Your task to perform on an android device: open app "NewsBreak: Local News & Alerts" Image 0: 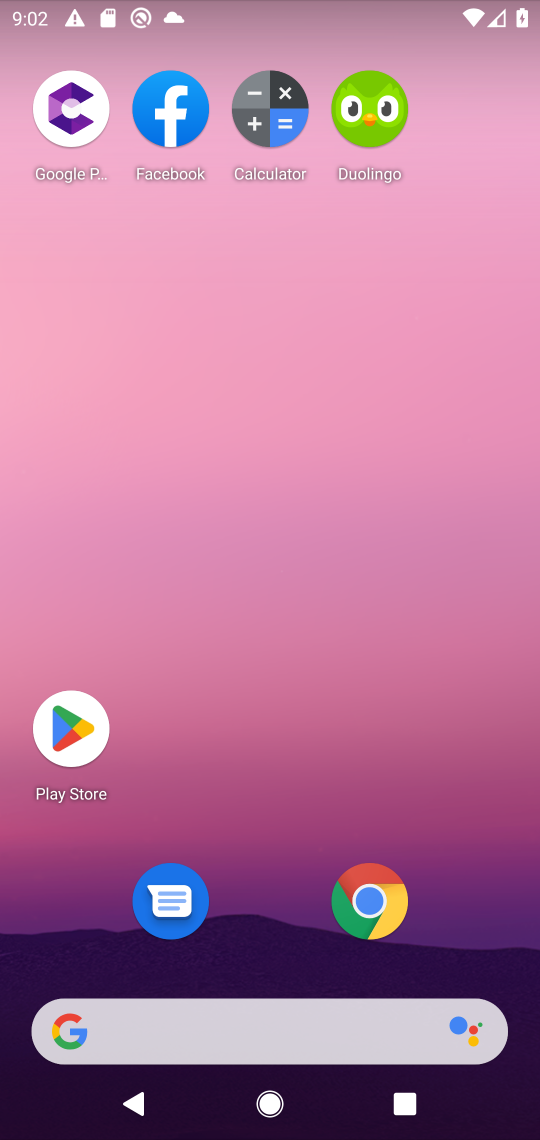
Step 0: click (99, 729)
Your task to perform on an android device: open app "NewsBreak: Local News & Alerts" Image 1: 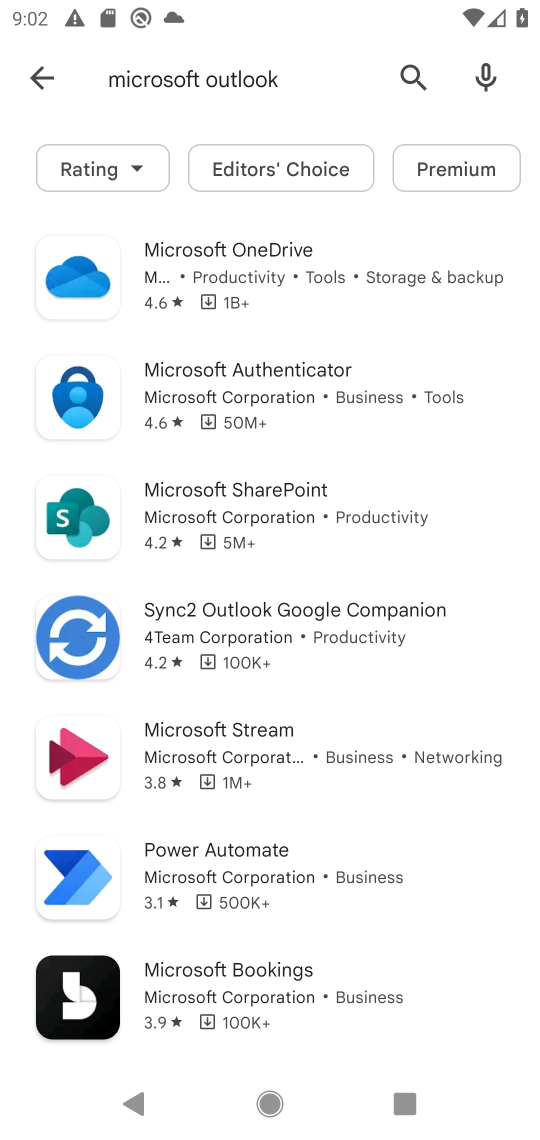
Step 1: click (30, 85)
Your task to perform on an android device: open app "NewsBreak: Local News & Alerts" Image 2: 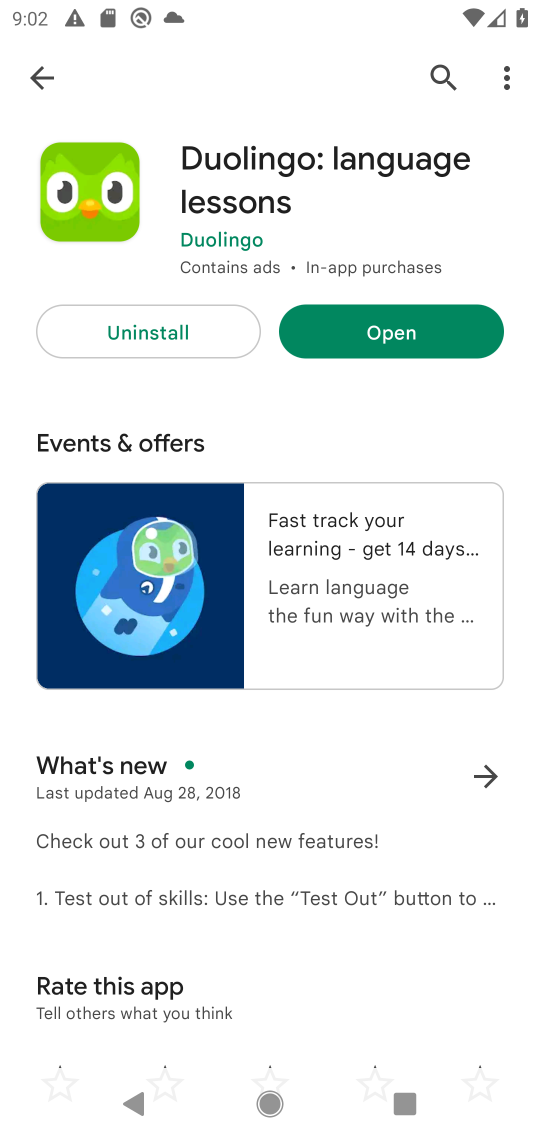
Step 2: press home button
Your task to perform on an android device: open app "NewsBreak: Local News & Alerts" Image 3: 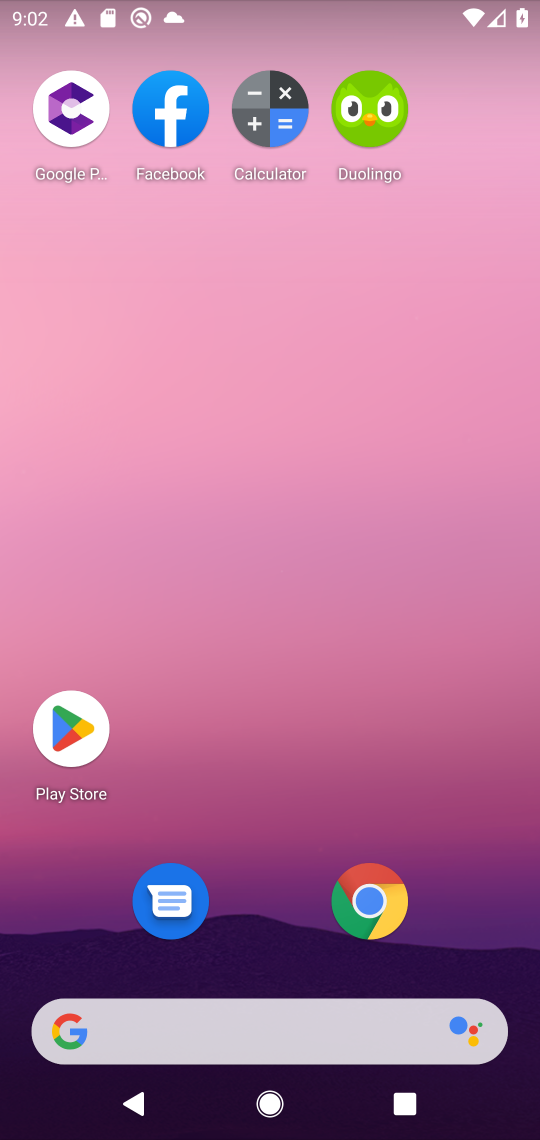
Step 3: click (90, 724)
Your task to perform on an android device: open app "NewsBreak: Local News & Alerts" Image 4: 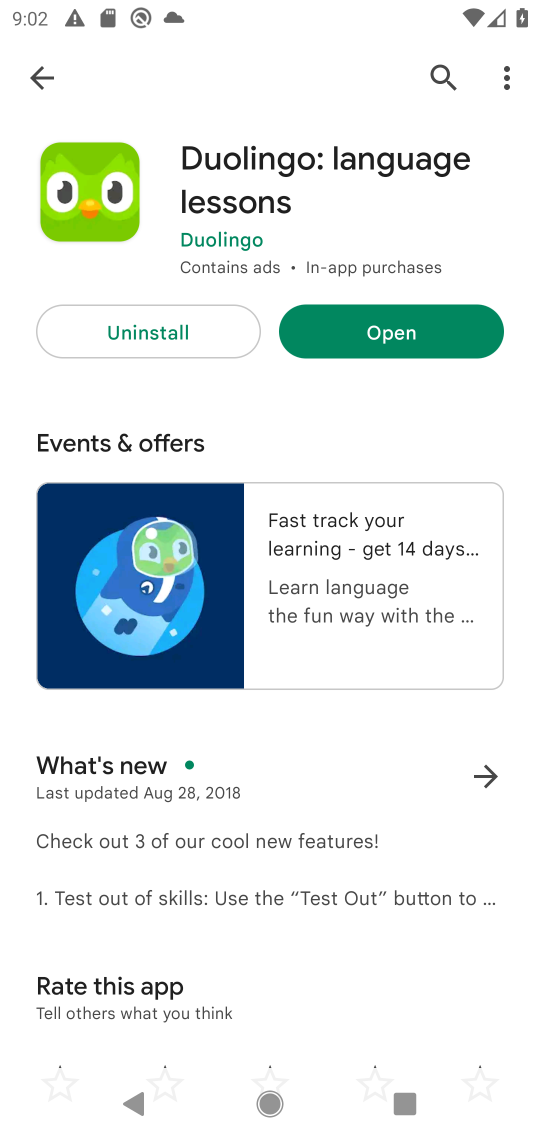
Step 4: click (442, 72)
Your task to perform on an android device: open app "NewsBreak: Local News & Alerts" Image 5: 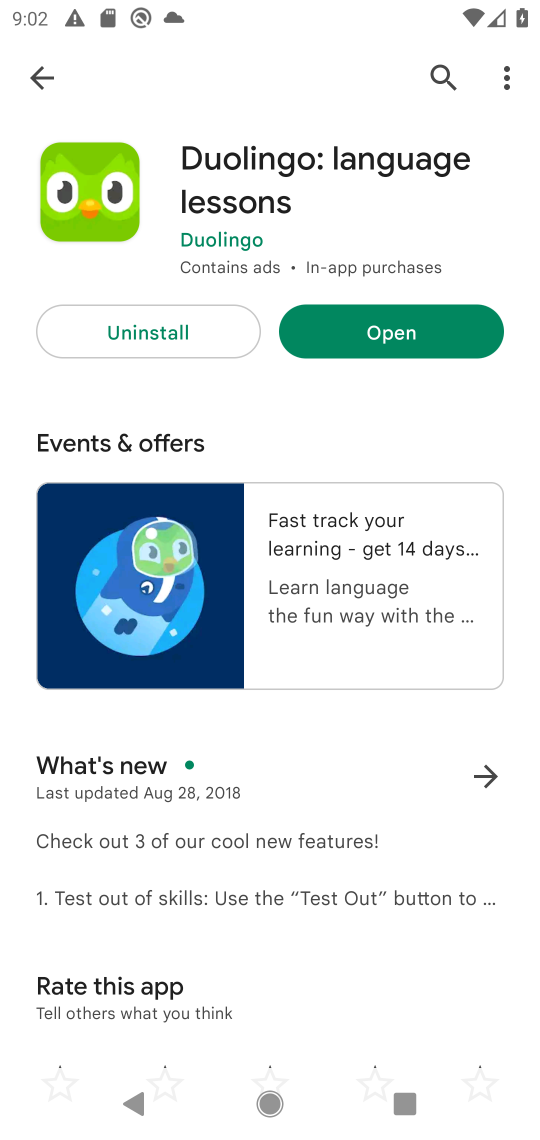
Step 5: click (441, 77)
Your task to perform on an android device: open app "NewsBreak: Local News & Alerts" Image 6: 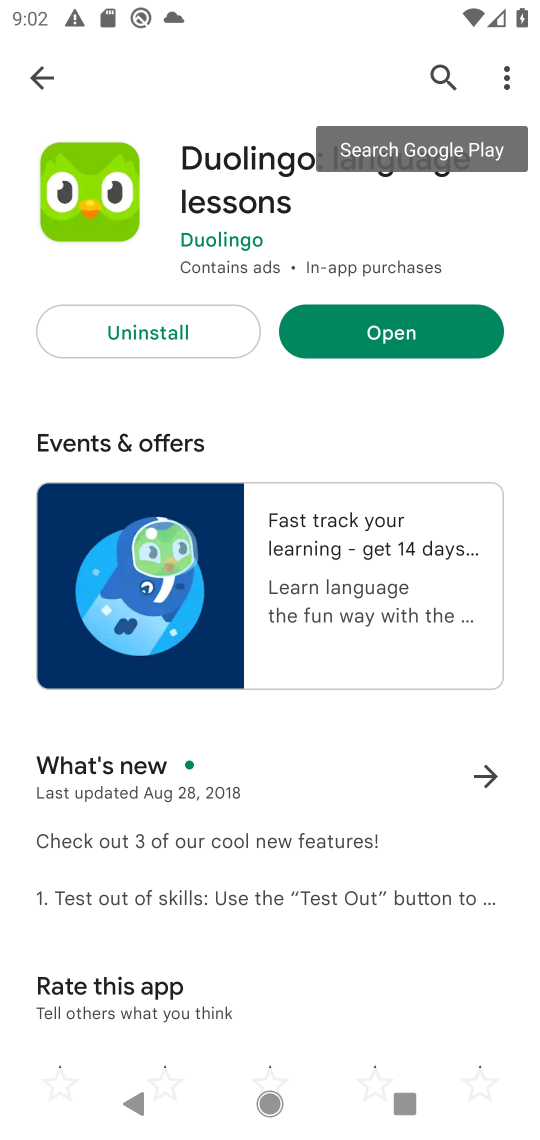
Step 6: click (364, 78)
Your task to perform on an android device: open app "NewsBreak: Local News & Alerts" Image 7: 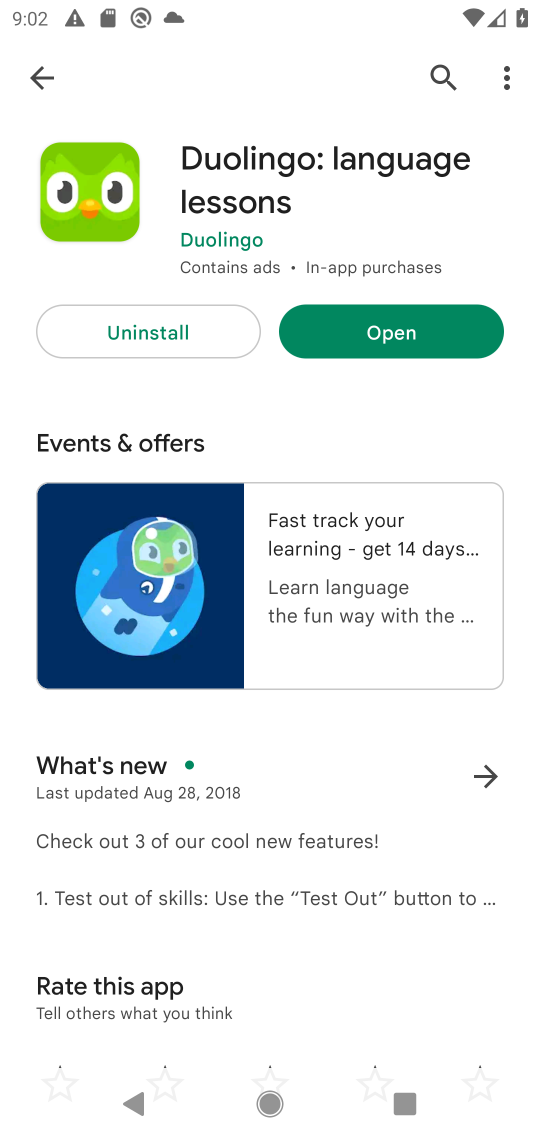
Step 7: click (47, 70)
Your task to perform on an android device: open app "NewsBreak: Local News & Alerts" Image 8: 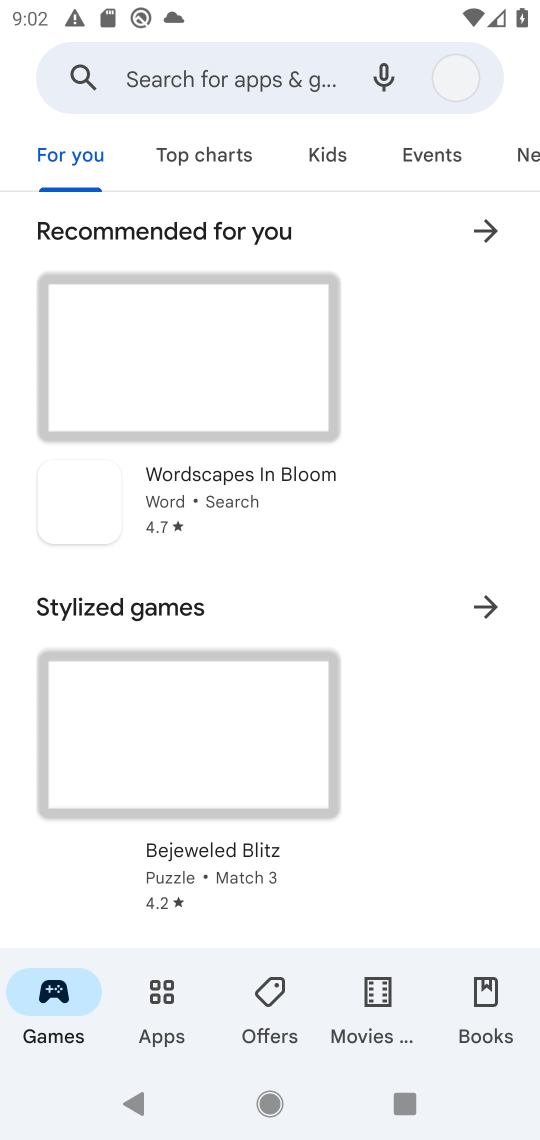
Step 8: click (246, 75)
Your task to perform on an android device: open app "NewsBreak: Local News & Alerts" Image 9: 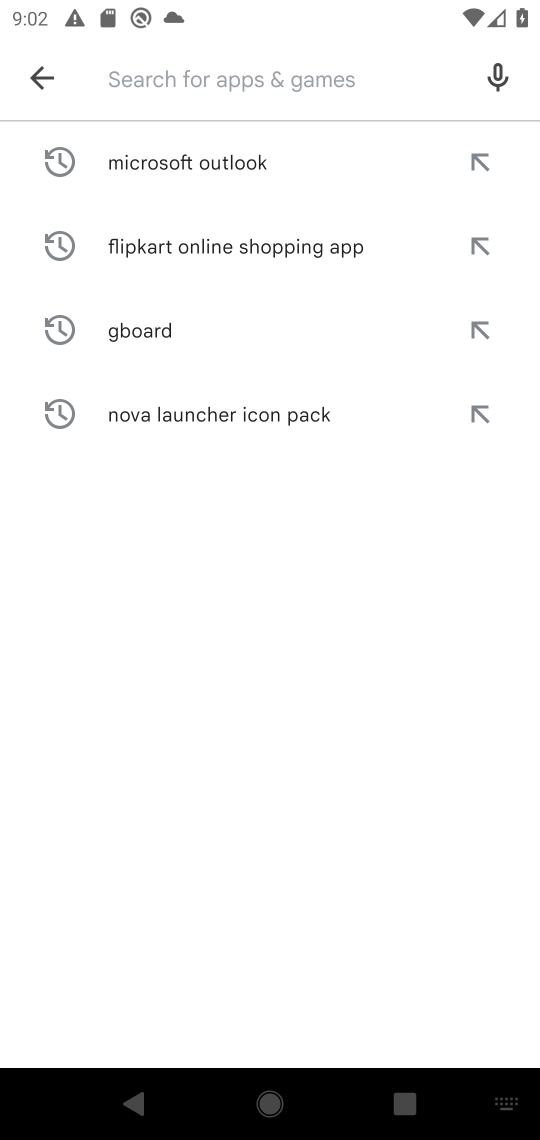
Step 9: type "NewsBreak: Local News & Alerts"
Your task to perform on an android device: open app "NewsBreak: Local News & Alerts" Image 10: 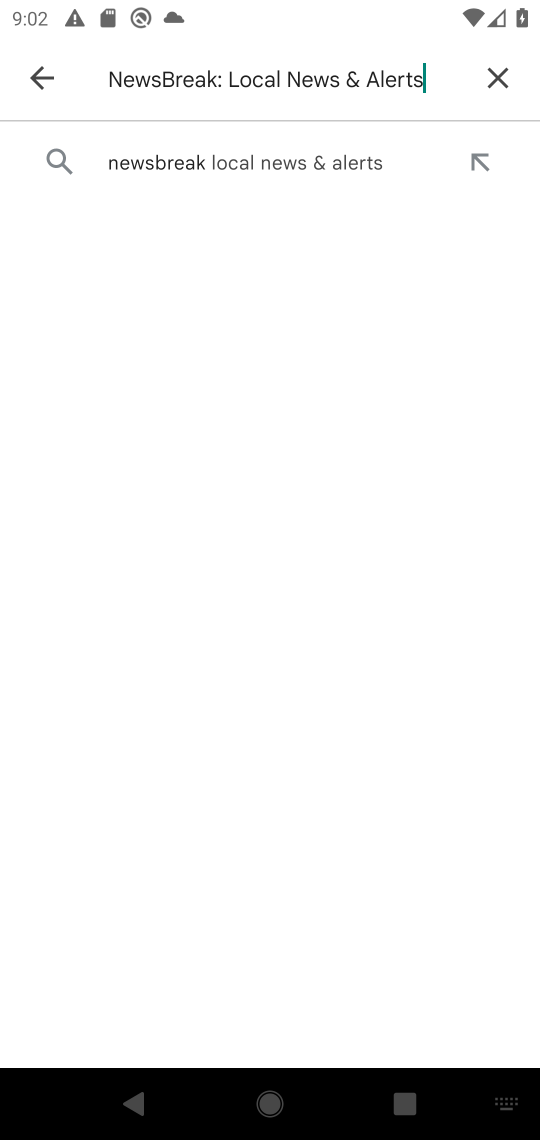
Step 10: click (213, 157)
Your task to perform on an android device: open app "NewsBreak: Local News & Alerts" Image 11: 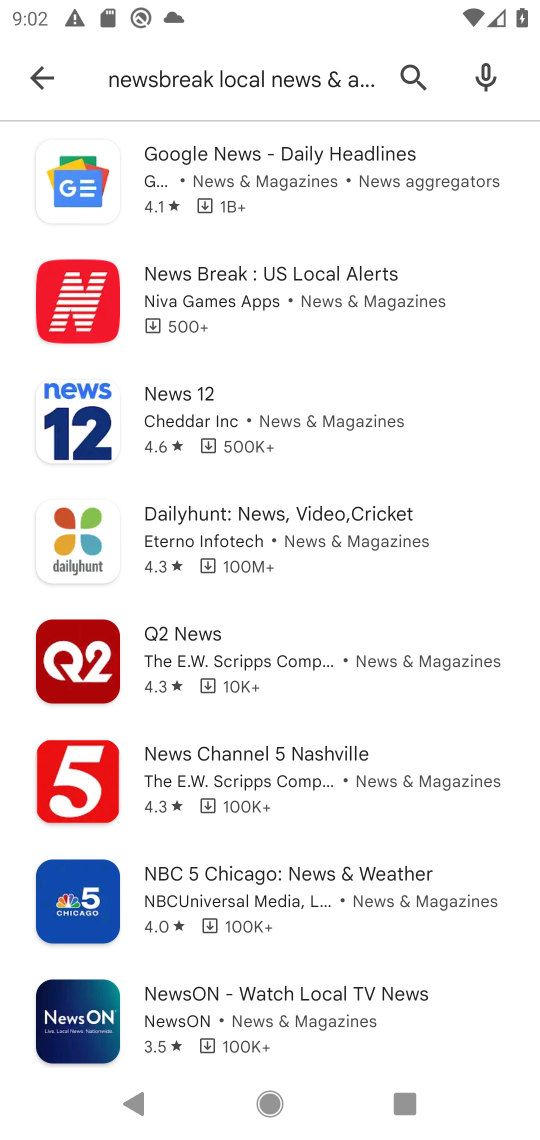
Step 11: task complete